Your task to perform on an android device: allow cookies in the chrome app Image 0: 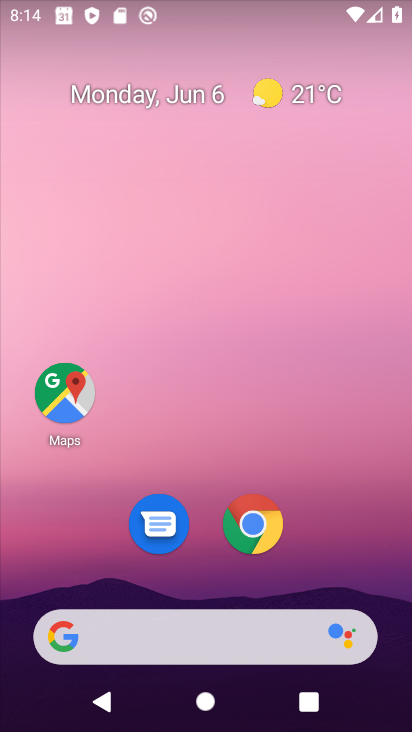
Step 0: click (263, 515)
Your task to perform on an android device: allow cookies in the chrome app Image 1: 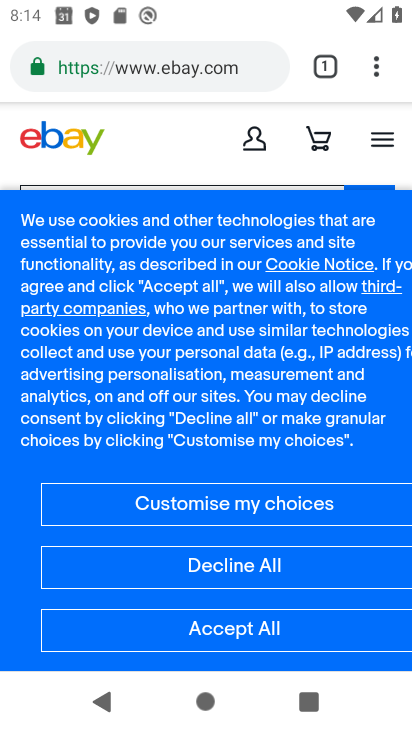
Step 1: click (376, 66)
Your task to perform on an android device: allow cookies in the chrome app Image 2: 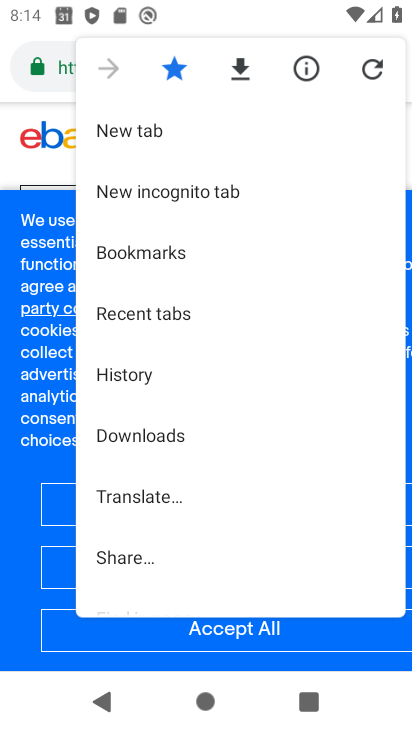
Step 2: drag from (208, 460) to (224, 273)
Your task to perform on an android device: allow cookies in the chrome app Image 3: 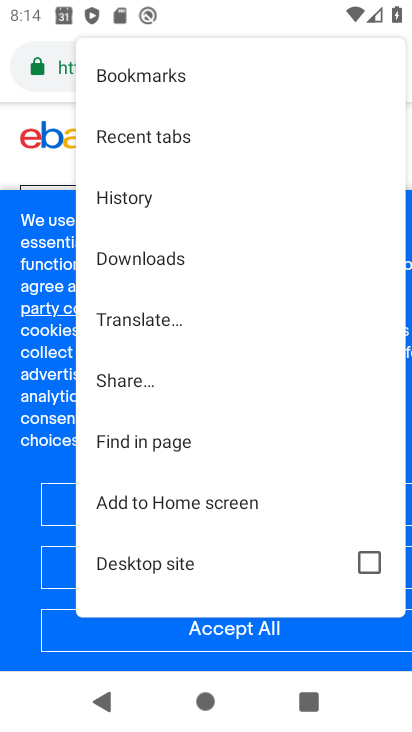
Step 3: drag from (211, 418) to (230, 242)
Your task to perform on an android device: allow cookies in the chrome app Image 4: 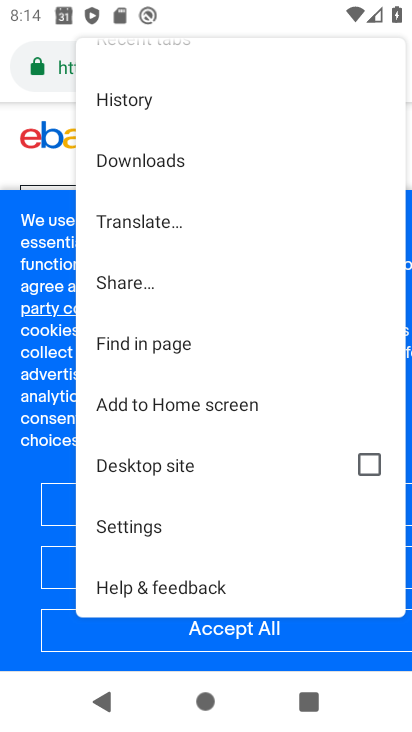
Step 4: drag from (230, 194) to (202, 466)
Your task to perform on an android device: allow cookies in the chrome app Image 5: 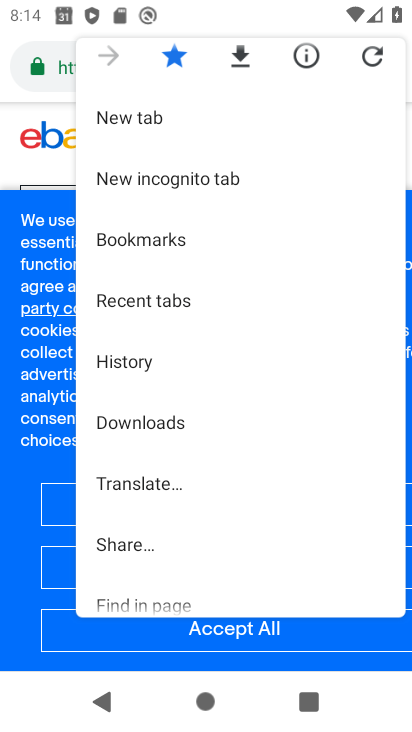
Step 5: drag from (206, 478) to (266, 104)
Your task to perform on an android device: allow cookies in the chrome app Image 6: 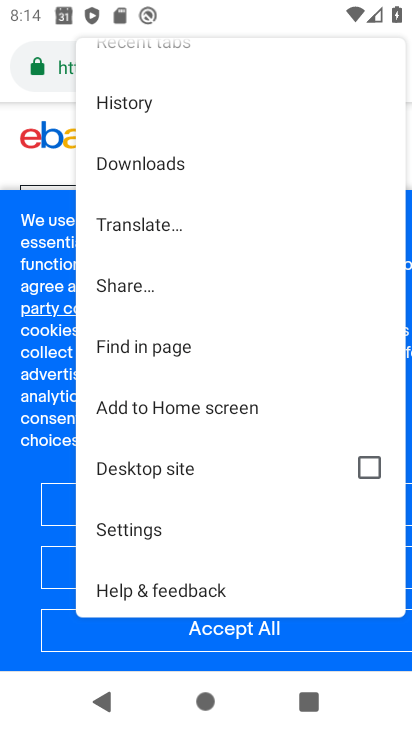
Step 6: click (157, 534)
Your task to perform on an android device: allow cookies in the chrome app Image 7: 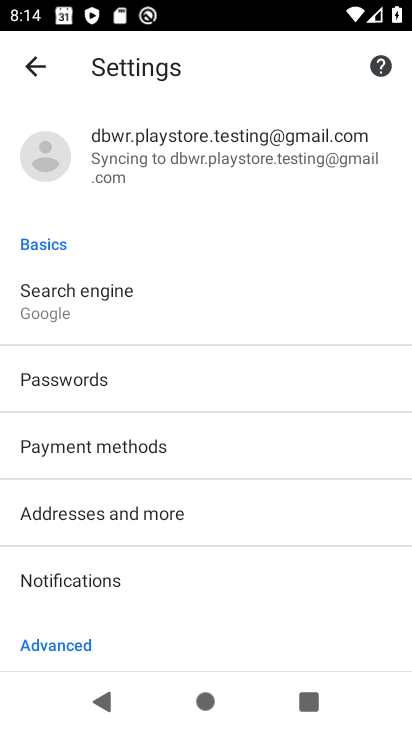
Step 7: drag from (275, 550) to (354, 252)
Your task to perform on an android device: allow cookies in the chrome app Image 8: 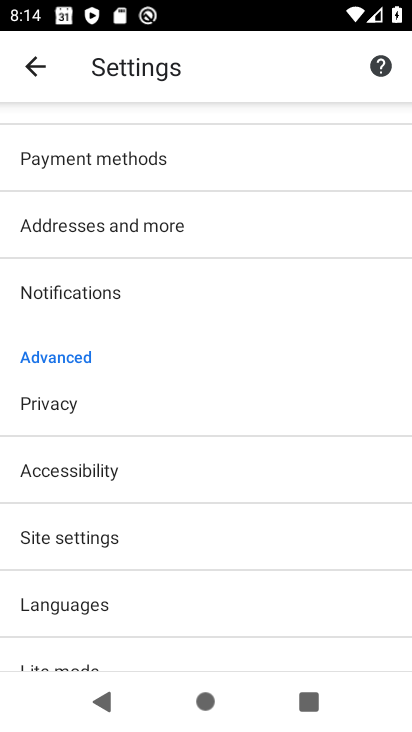
Step 8: click (235, 533)
Your task to perform on an android device: allow cookies in the chrome app Image 9: 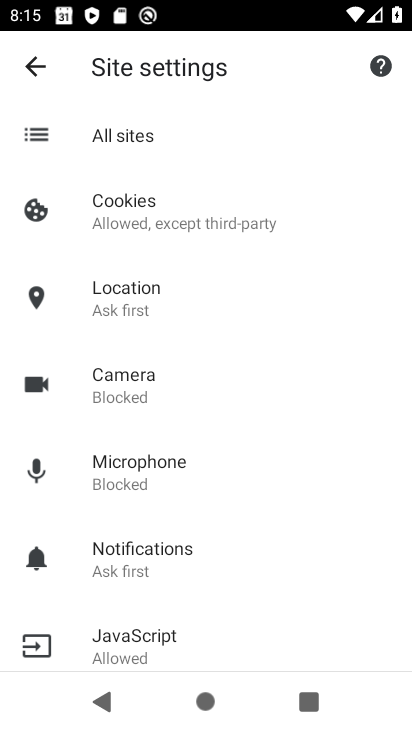
Step 9: task complete